Your task to perform on an android device: What is the recent news? Image 0: 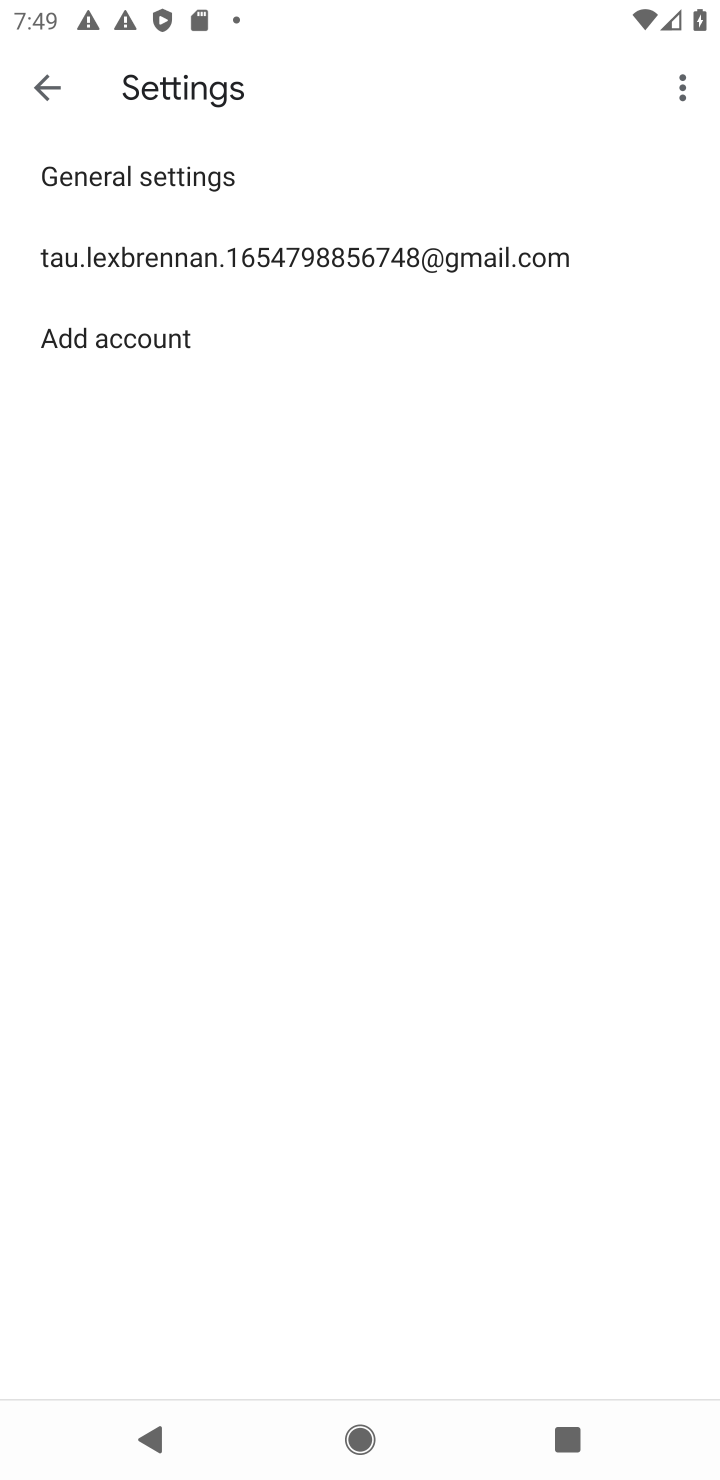
Step 0: press home button
Your task to perform on an android device: What is the recent news? Image 1: 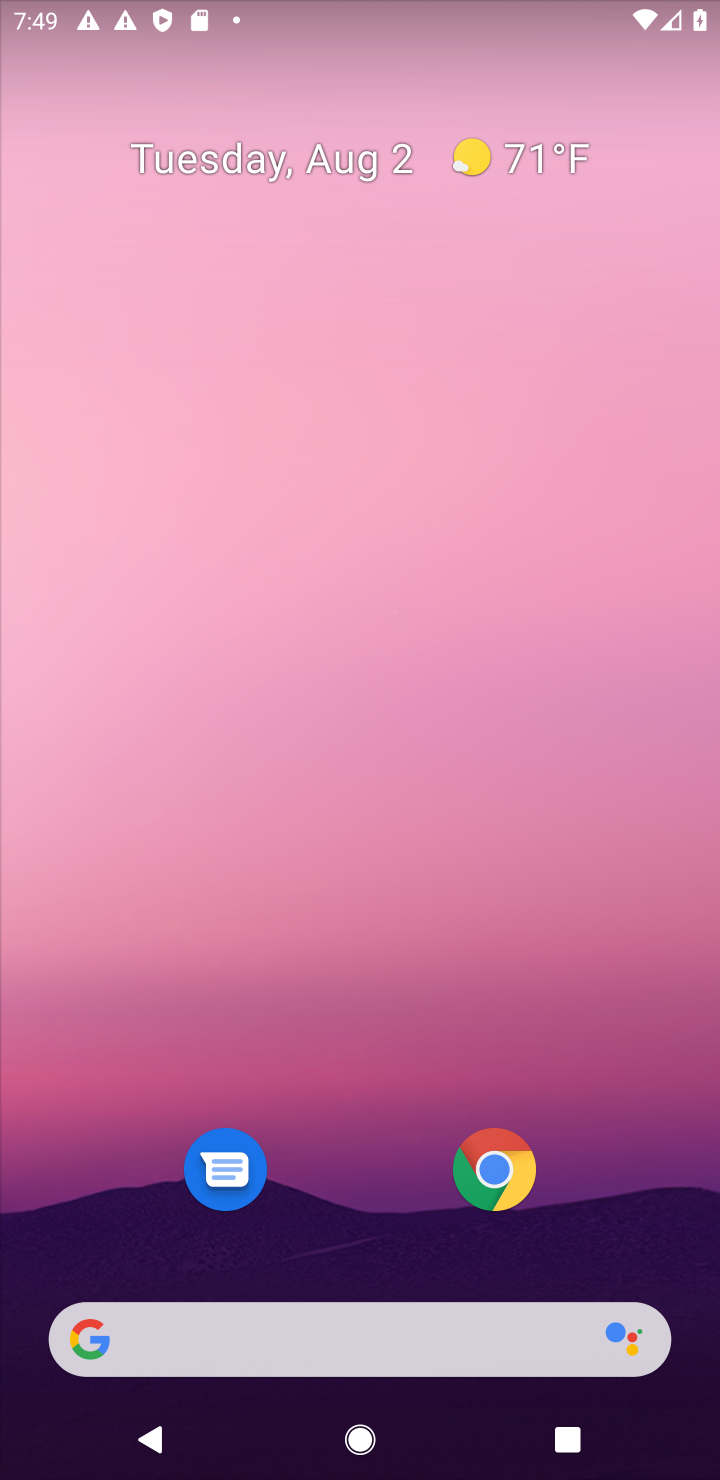
Step 1: click (469, 1355)
Your task to perform on an android device: What is the recent news? Image 2: 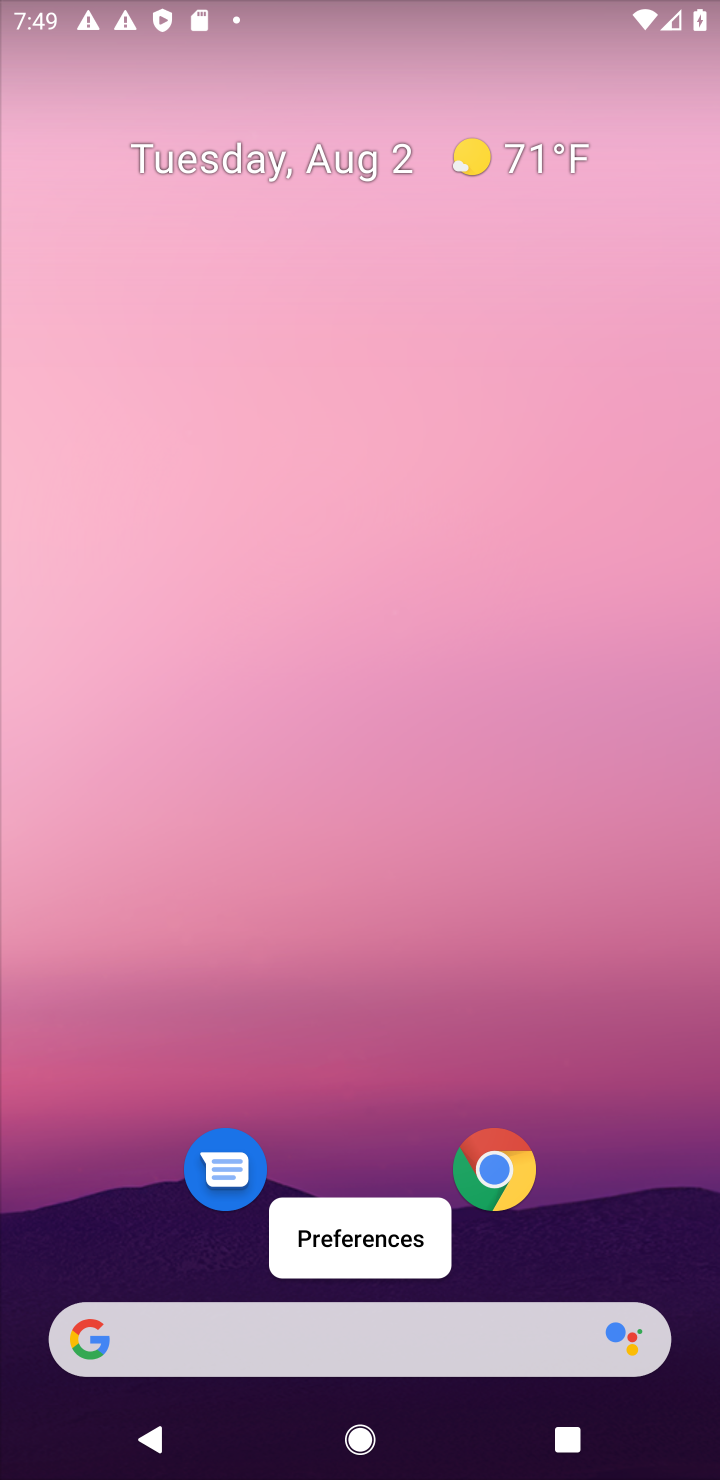
Step 2: click (464, 1362)
Your task to perform on an android device: What is the recent news? Image 3: 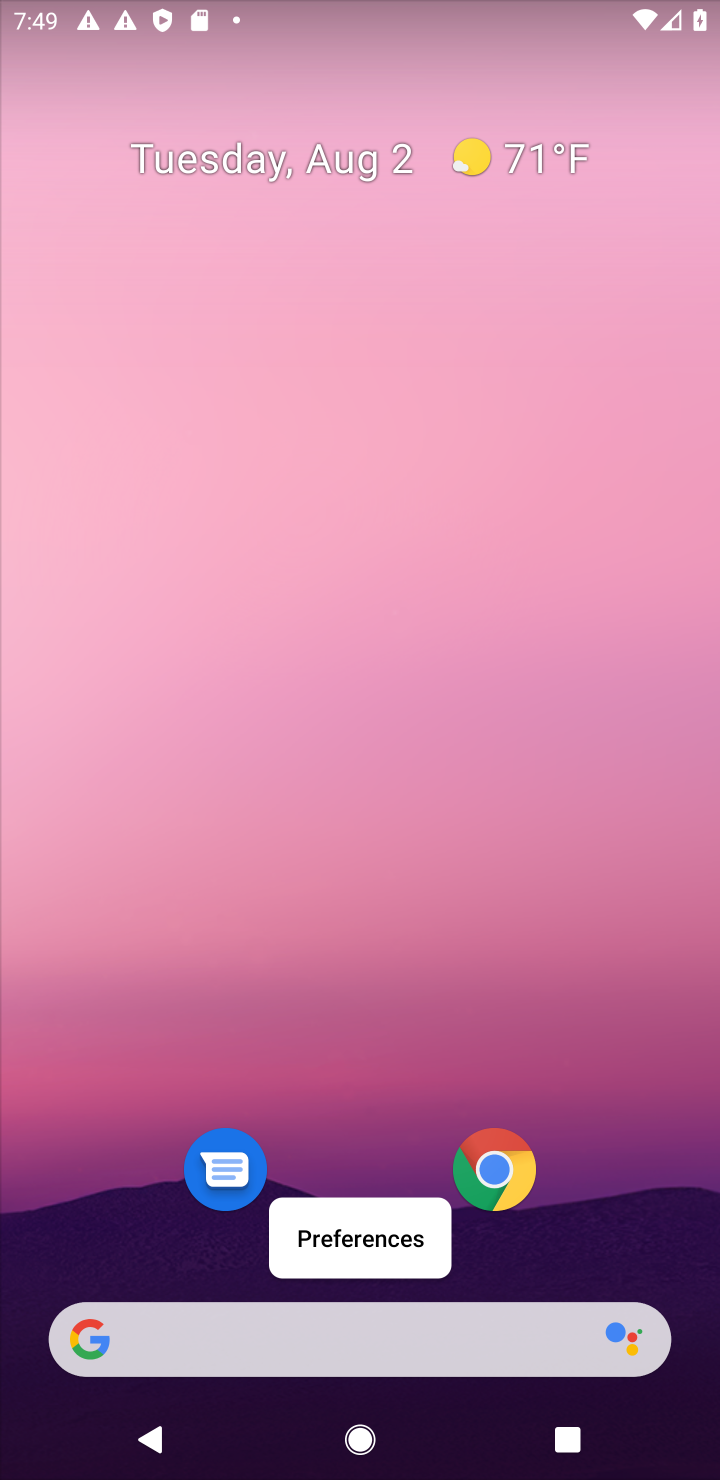
Step 3: click (464, 1362)
Your task to perform on an android device: What is the recent news? Image 4: 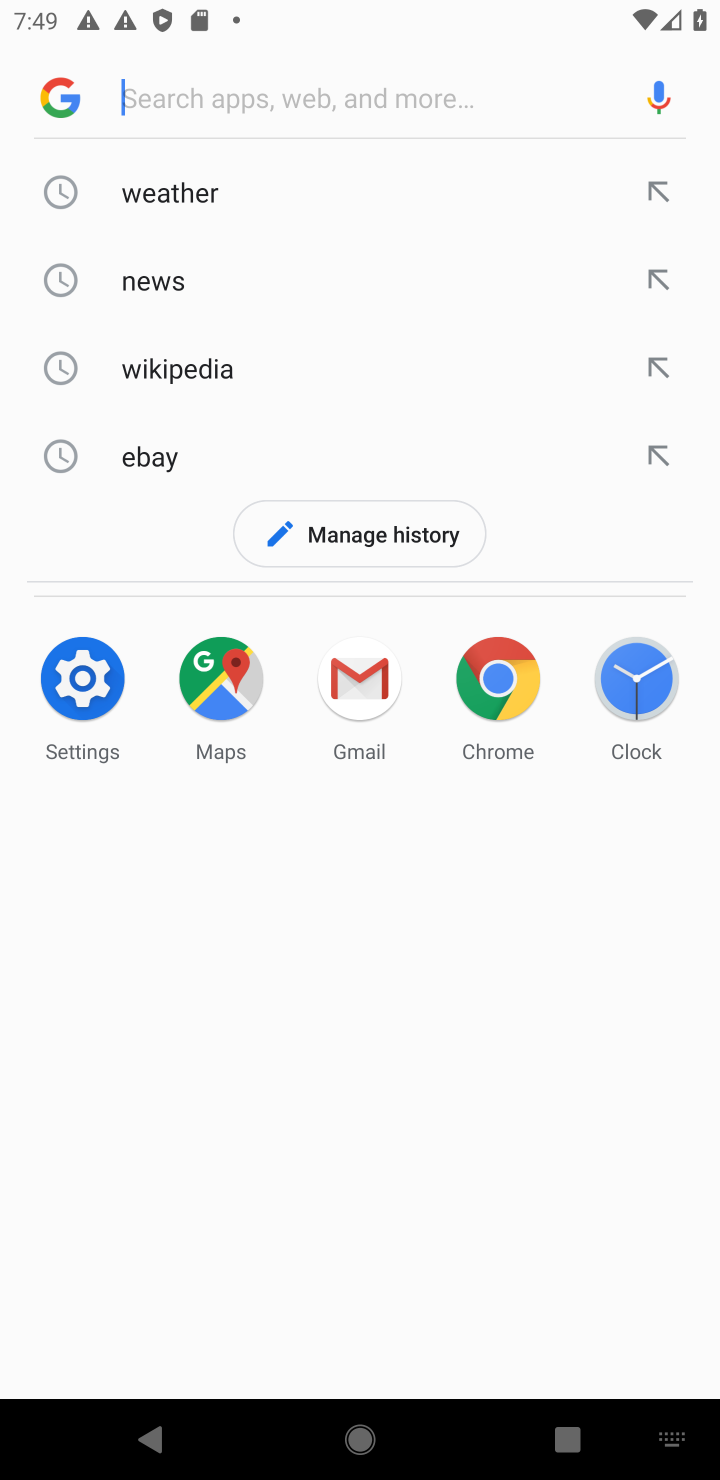
Step 4: type "recent news"
Your task to perform on an android device: What is the recent news? Image 5: 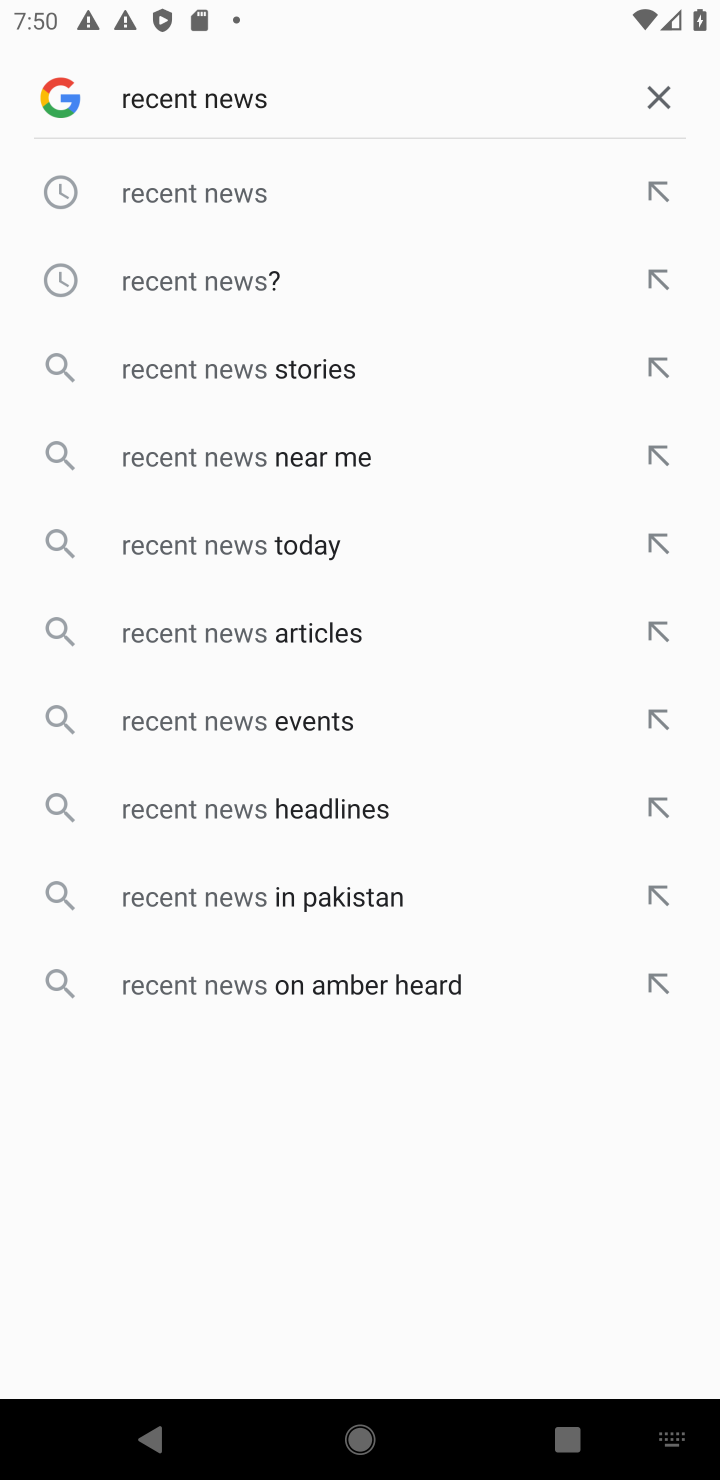
Step 5: click (234, 185)
Your task to perform on an android device: What is the recent news? Image 6: 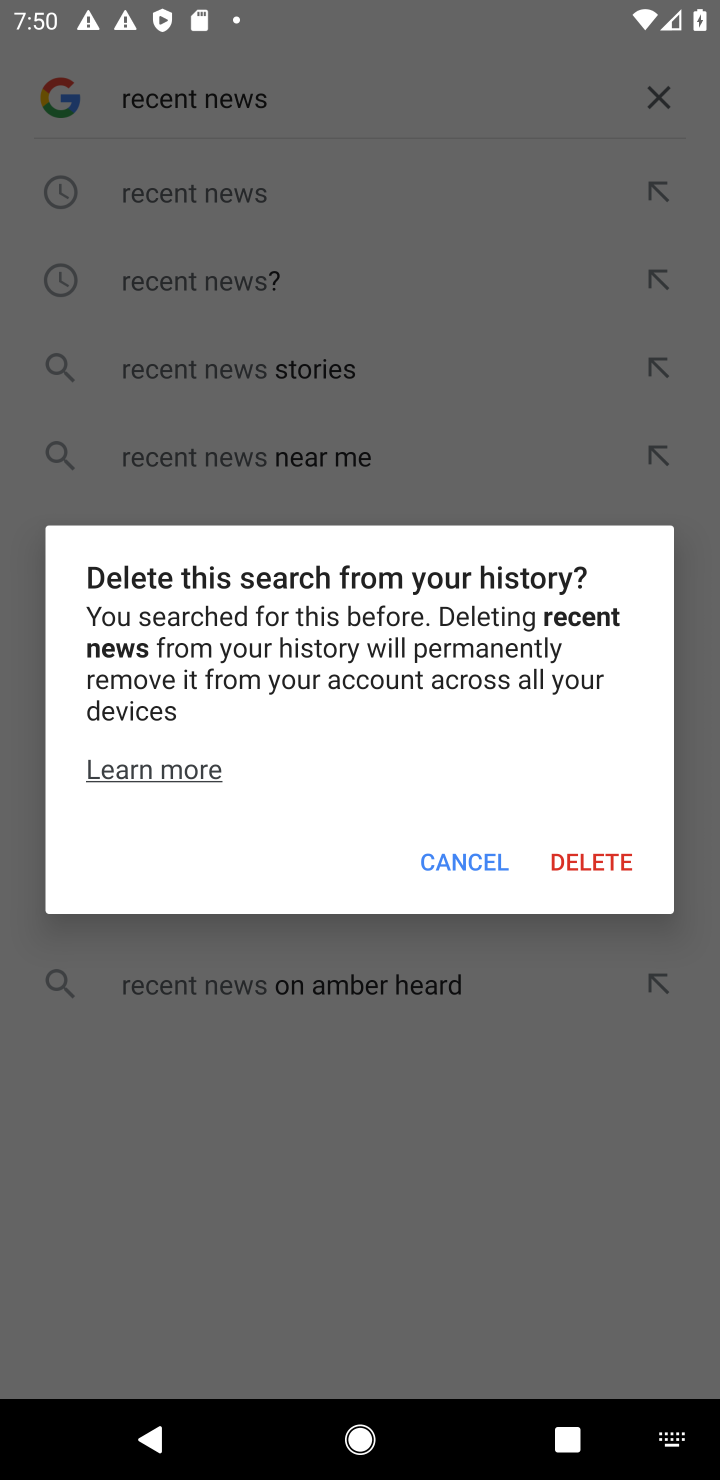
Step 6: click (466, 863)
Your task to perform on an android device: What is the recent news? Image 7: 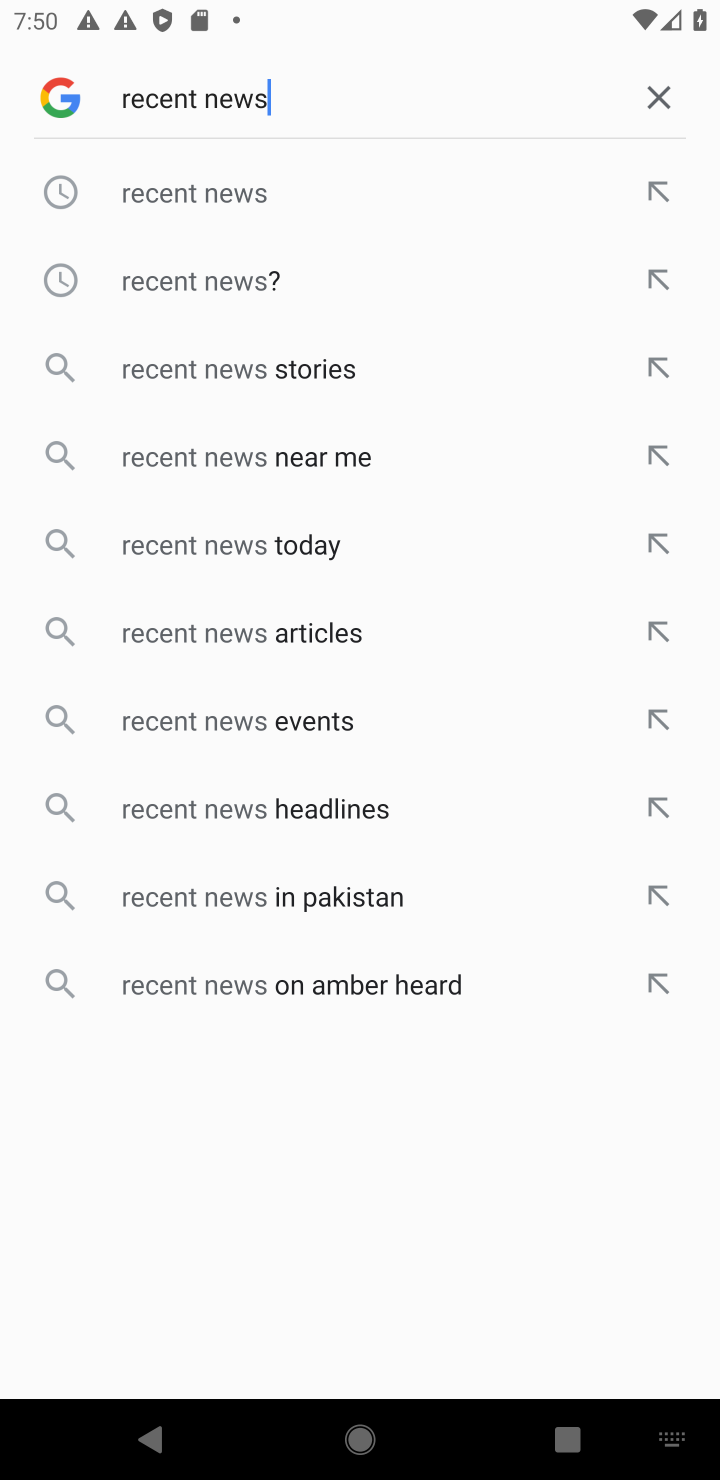
Step 7: click (131, 189)
Your task to perform on an android device: What is the recent news? Image 8: 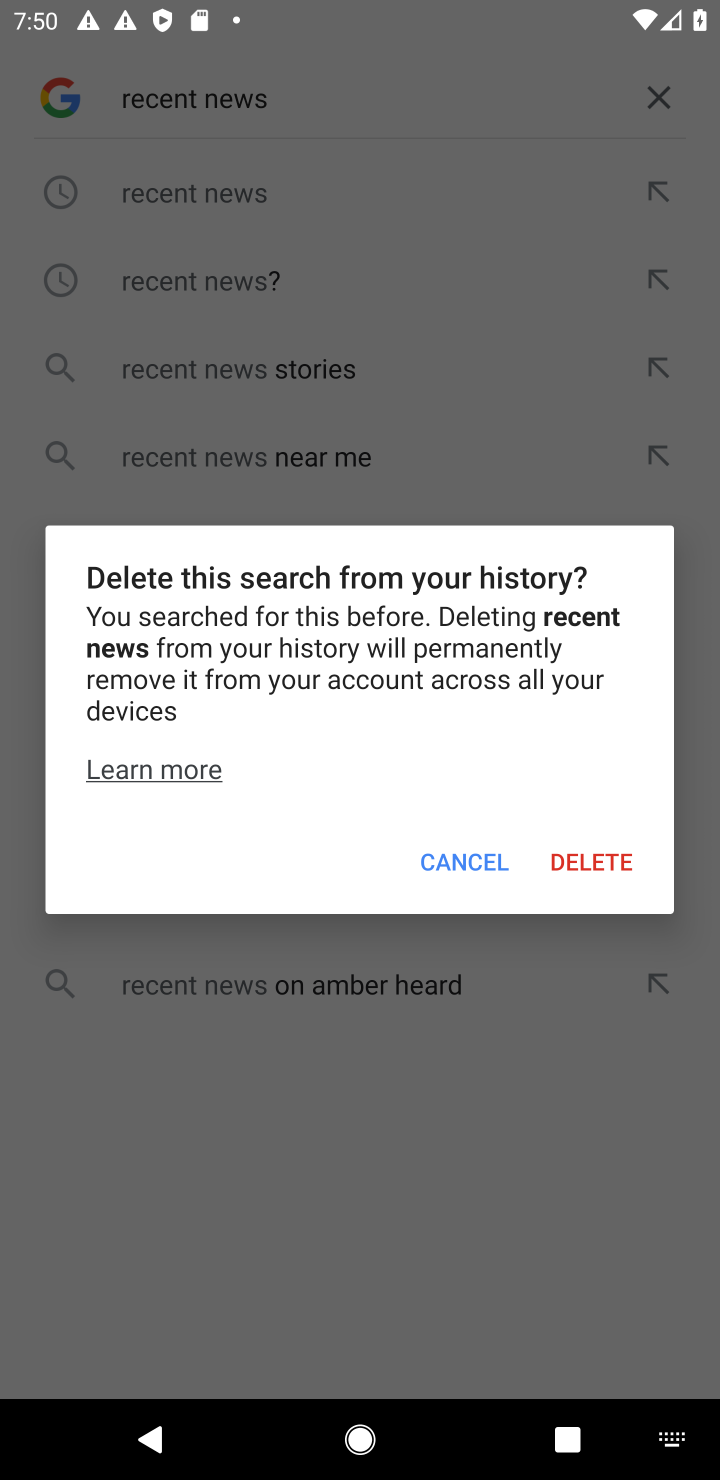
Step 8: click (445, 853)
Your task to perform on an android device: What is the recent news? Image 9: 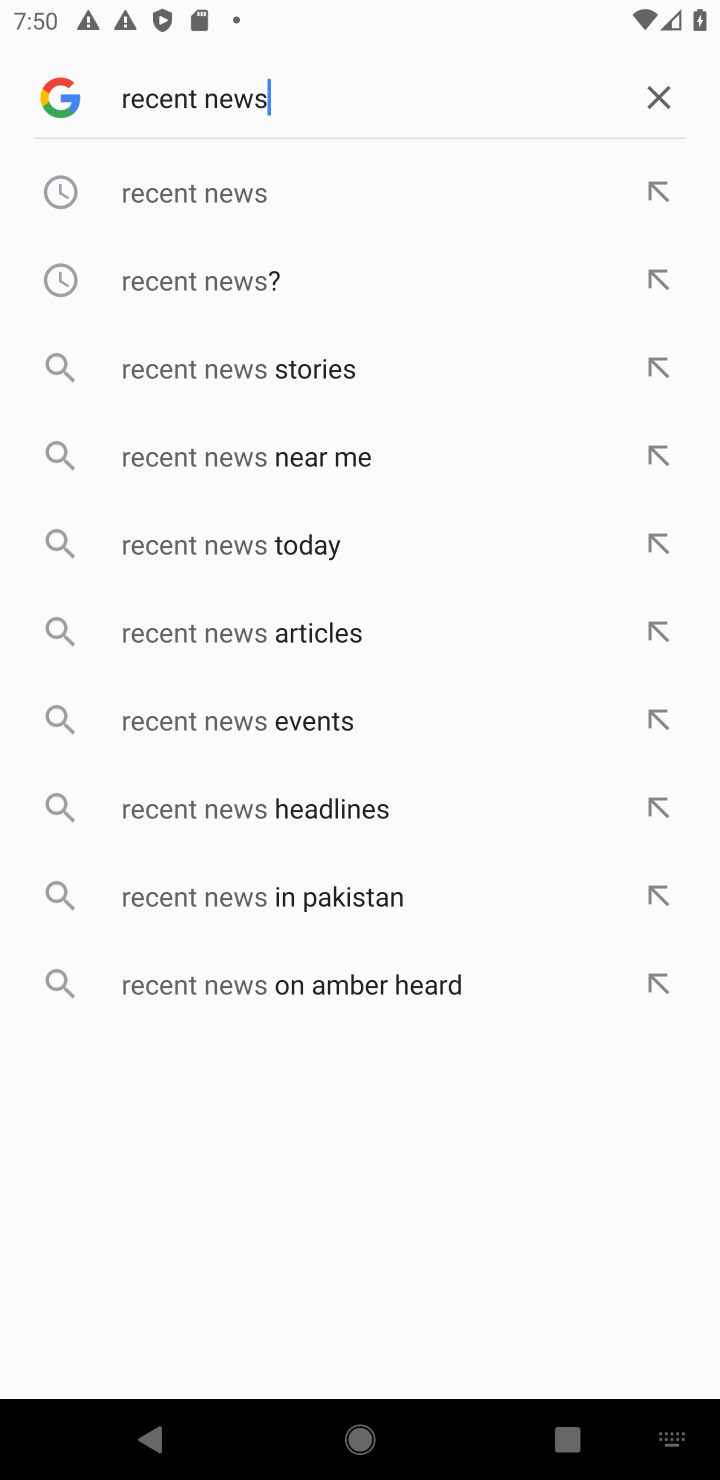
Step 9: click (658, 186)
Your task to perform on an android device: What is the recent news? Image 10: 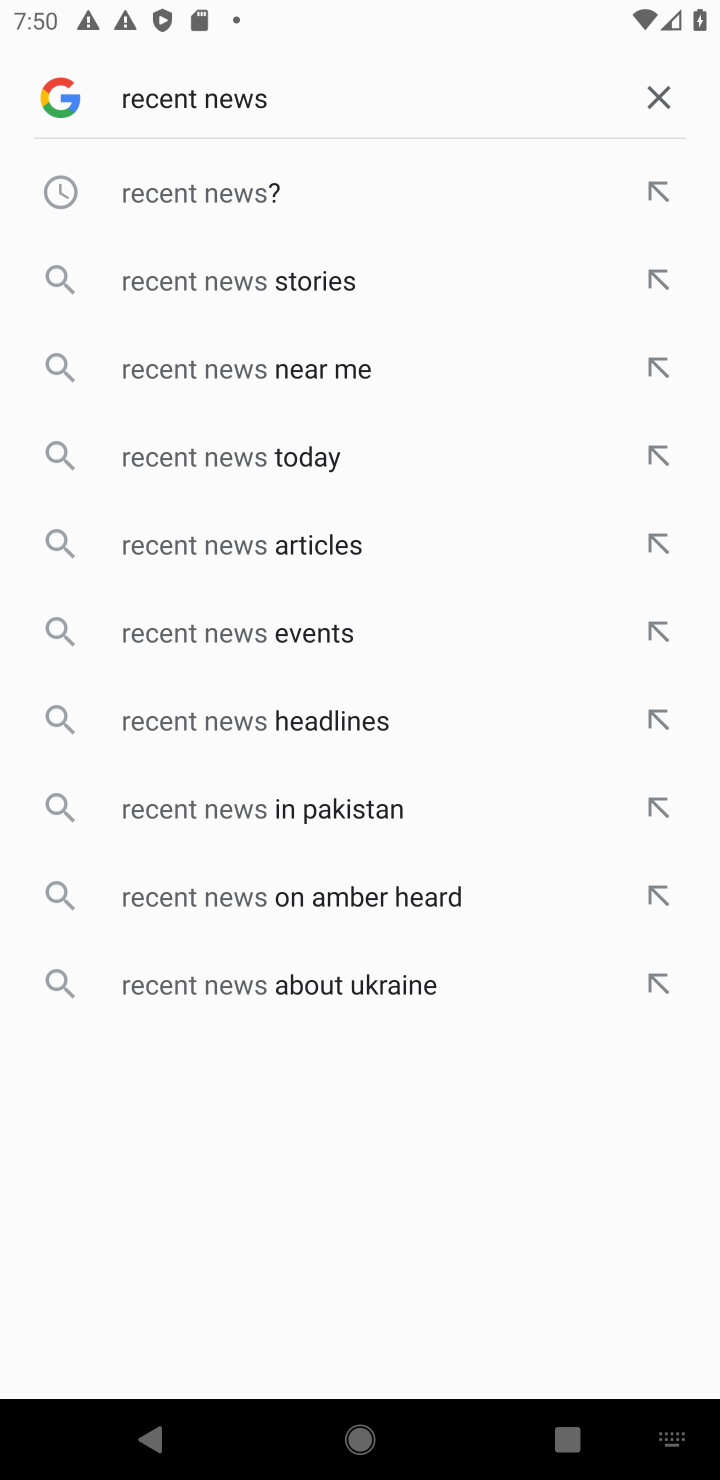
Step 10: click (62, 193)
Your task to perform on an android device: What is the recent news? Image 11: 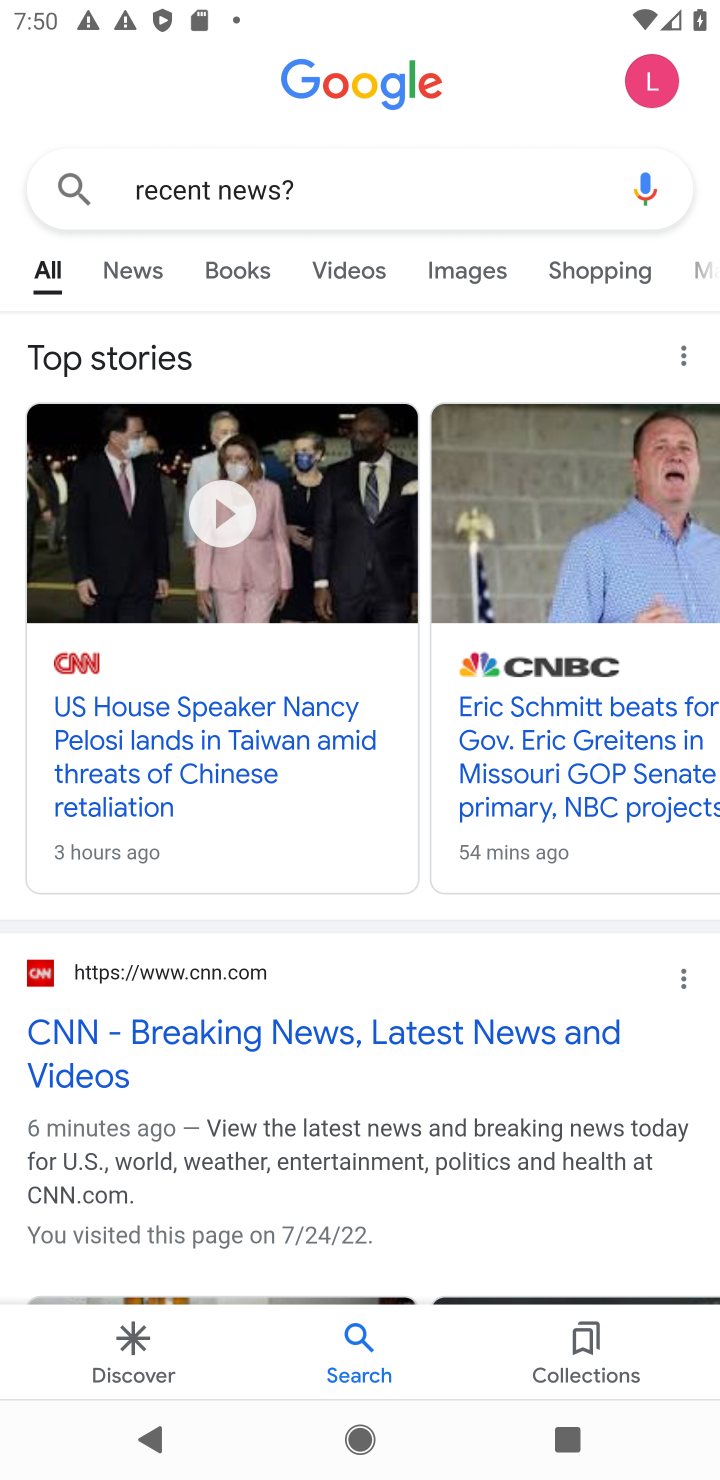
Step 11: task complete